Your task to perform on an android device: change timer sound Image 0: 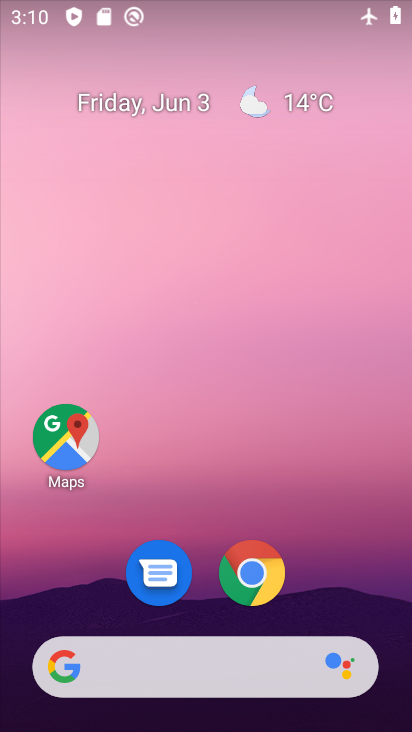
Step 0: drag from (264, 292) to (299, 62)
Your task to perform on an android device: change timer sound Image 1: 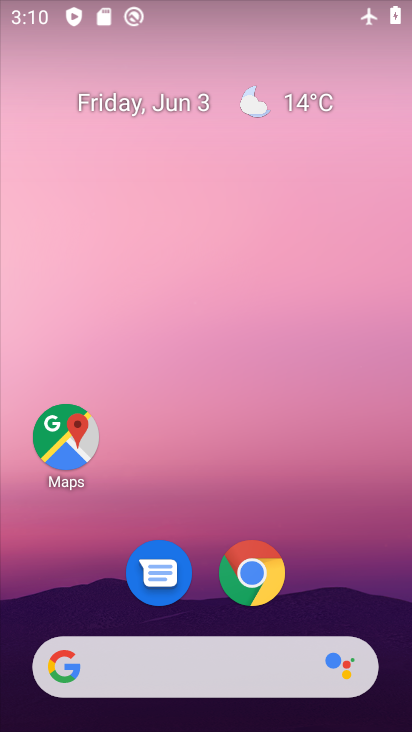
Step 1: drag from (209, 535) to (404, 535)
Your task to perform on an android device: change timer sound Image 2: 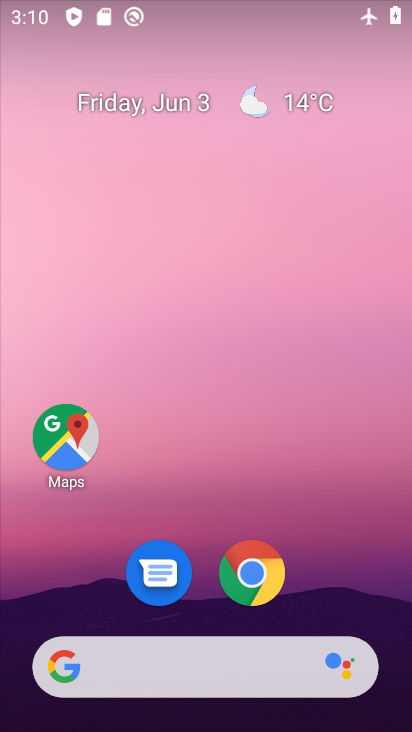
Step 2: drag from (129, 508) to (240, 185)
Your task to perform on an android device: change timer sound Image 3: 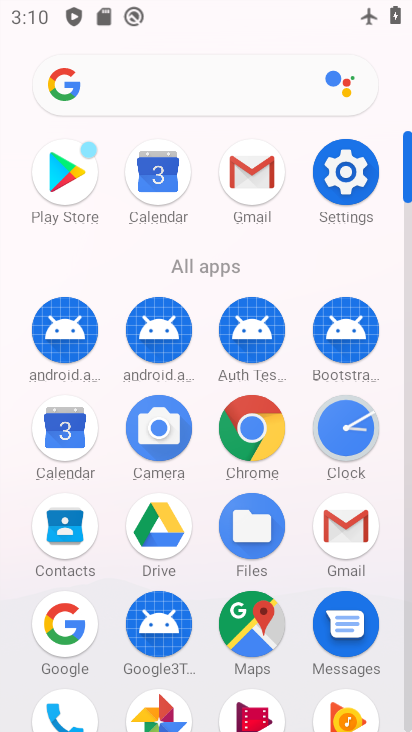
Step 3: click (345, 431)
Your task to perform on an android device: change timer sound Image 4: 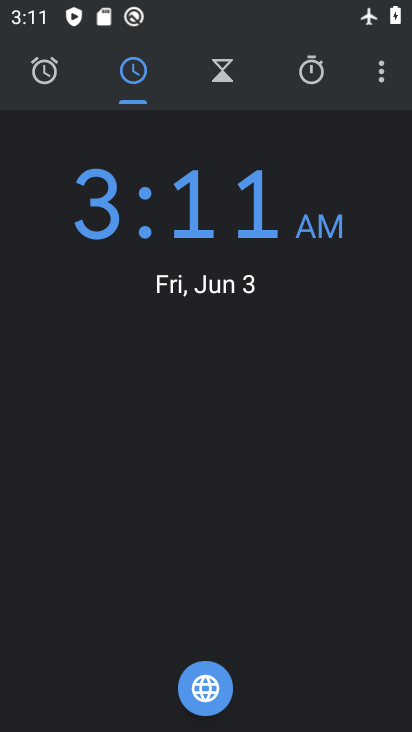
Step 4: click (387, 82)
Your task to perform on an android device: change timer sound Image 5: 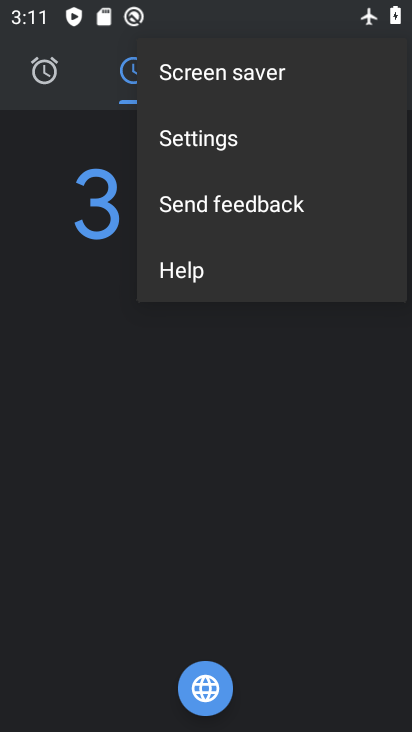
Step 5: click (234, 134)
Your task to perform on an android device: change timer sound Image 6: 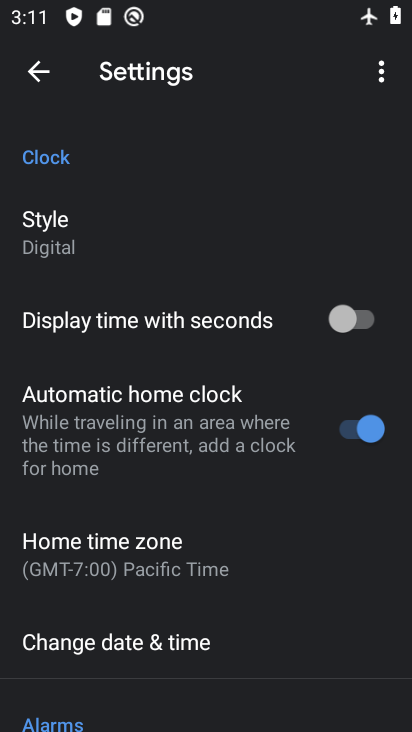
Step 6: drag from (157, 545) to (207, 260)
Your task to perform on an android device: change timer sound Image 7: 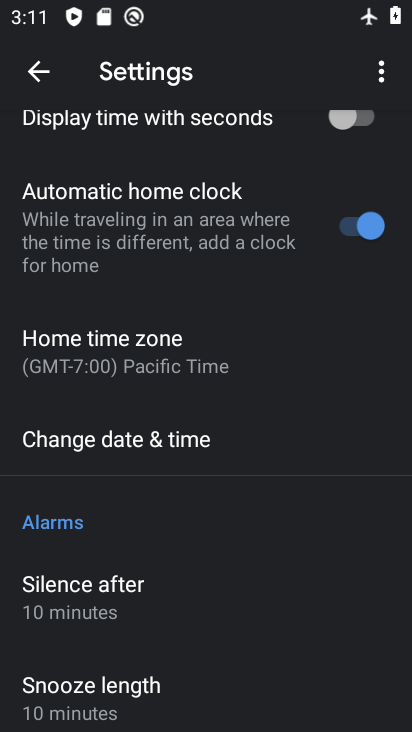
Step 7: drag from (171, 544) to (235, 309)
Your task to perform on an android device: change timer sound Image 8: 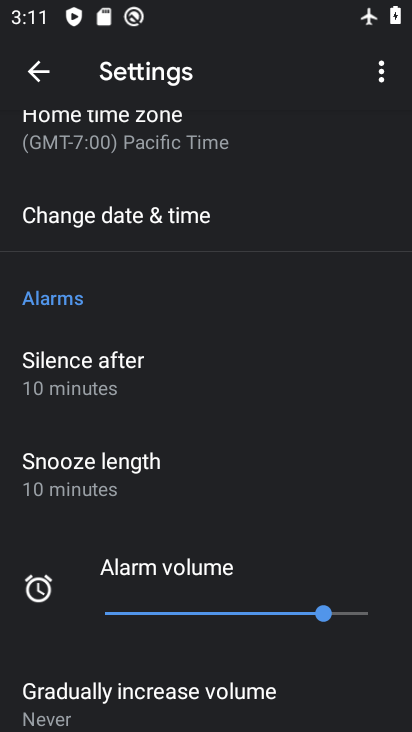
Step 8: drag from (112, 496) to (195, 183)
Your task to perform on an android device: change timer sound Image 9: 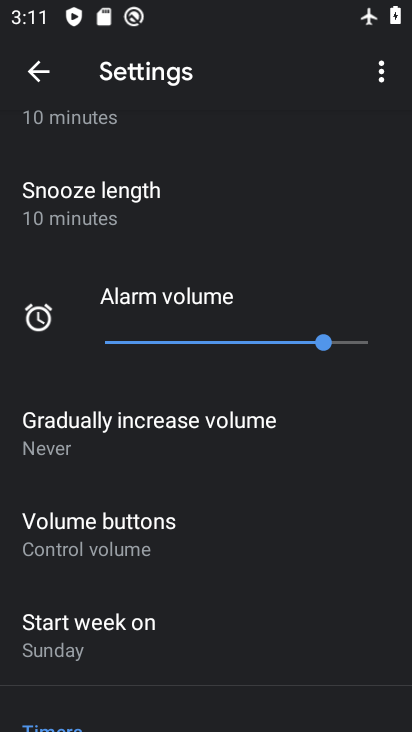
Step 9: drag from (168, 530) to (212, 245)
Your task to perform on an android device: change timer sound Image 10: 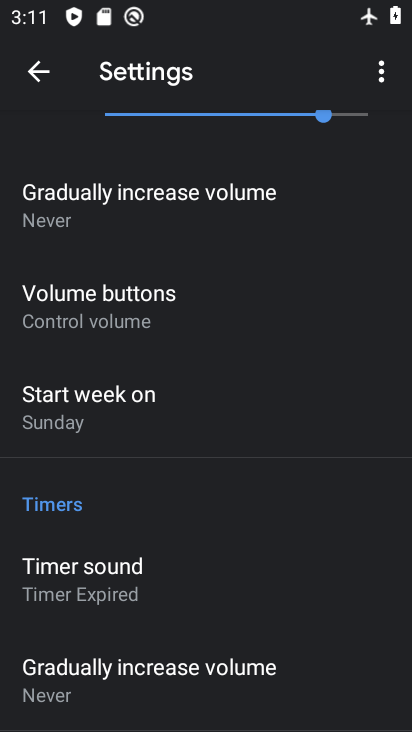
Step 10: click (134, 581)
Your task to perform on an android device: change timer sound Image 11: 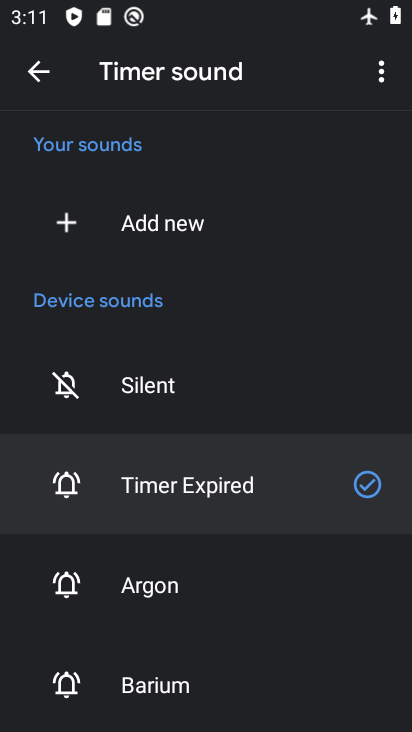
Step 11: click (167, 581)
Your task to perform on an android device: change timer sound Image 12: 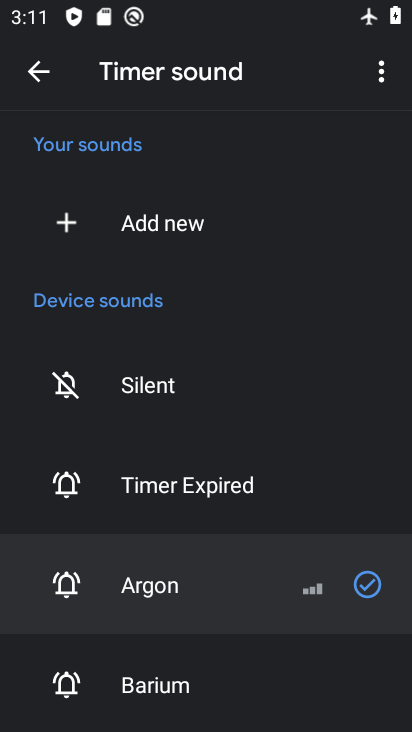
Step 12: task complete